Your task to perform on an android device: Open the stopwatch Image 0: 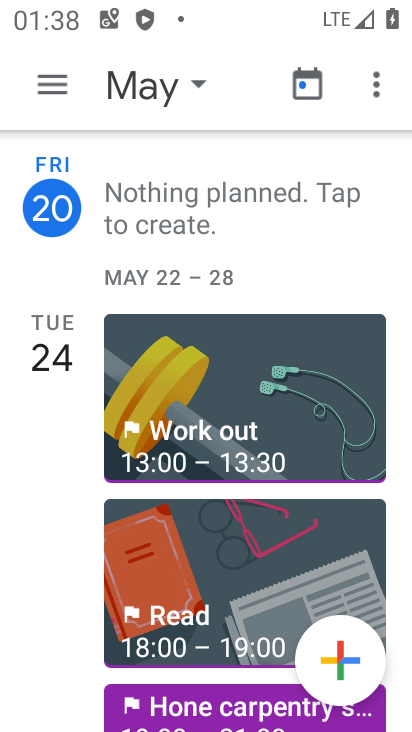
Step 0: click (204, 195)
Your task to perform on an android device: Open the stopwatch Image 1: 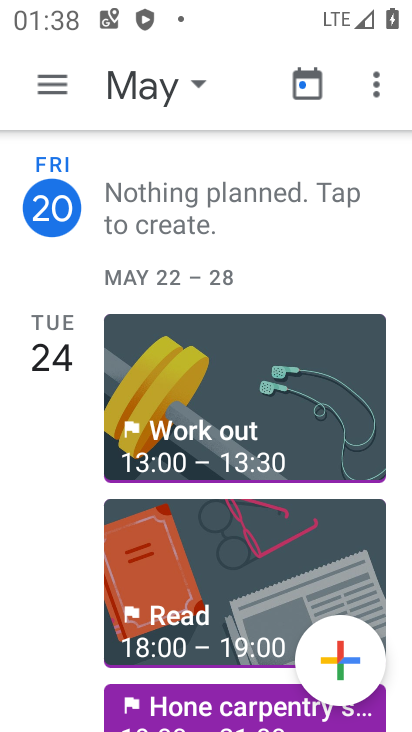
Step 1: press home button
Your task to perform on an android device: Open the stopwatch Image 2: 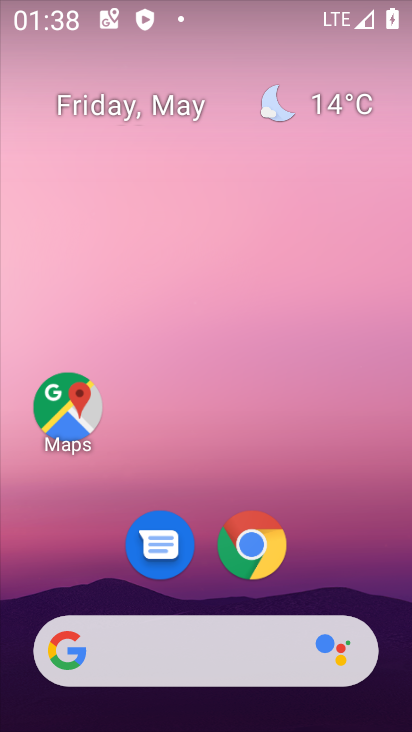
Step 2: drag from (287, 596) to (231, 106)
Your task to perform on an android device: Open the stopwatch Image 3: 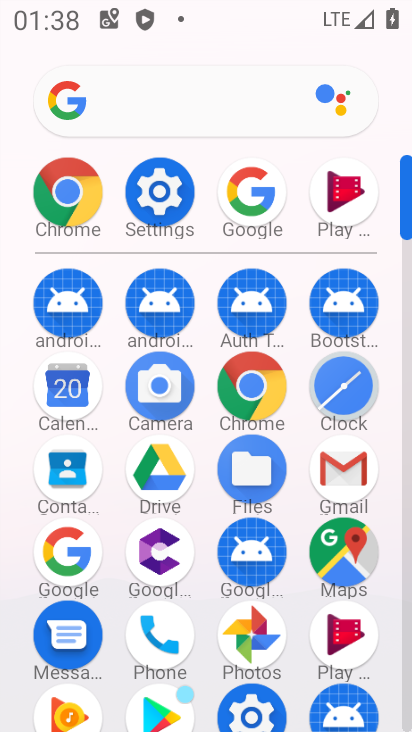
Step 3: click (343, 386)
Your task to perform on an android device: Open the stopwatch Image 4: 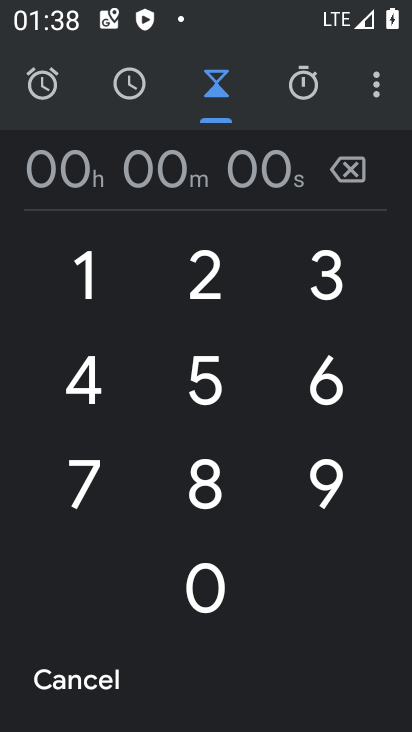
Step 4: click (304, 95)
Your task to perform on an android device: Open the stopwatch Image 5: 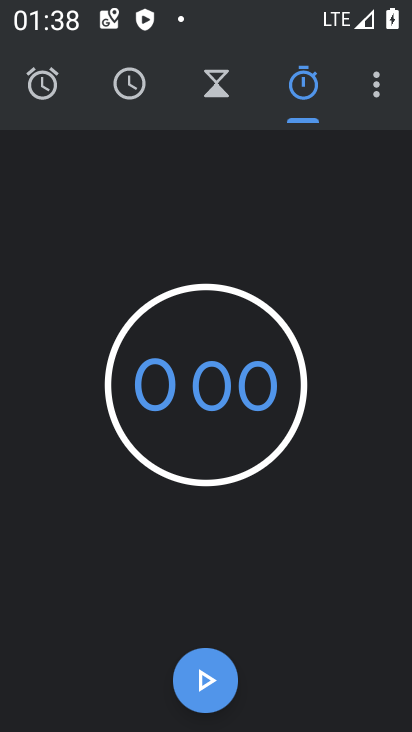
Step 5: click (219, 695)
Your task to perform on an android device: Open the stopwatch Image 6: 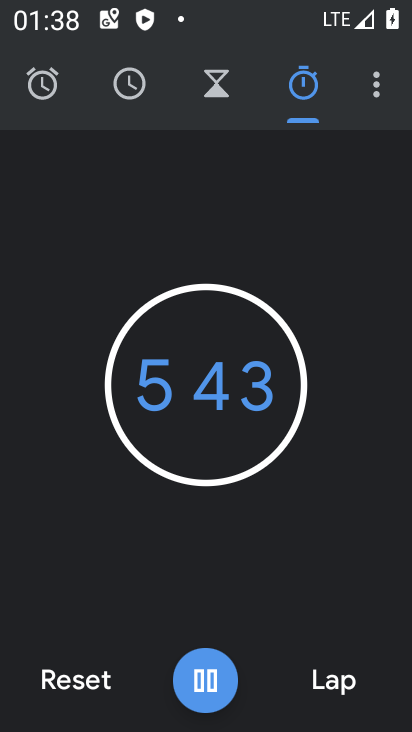
Step 6: click (209, 676)
Your task to perform on an android device: Open the stopwatch Image 7: 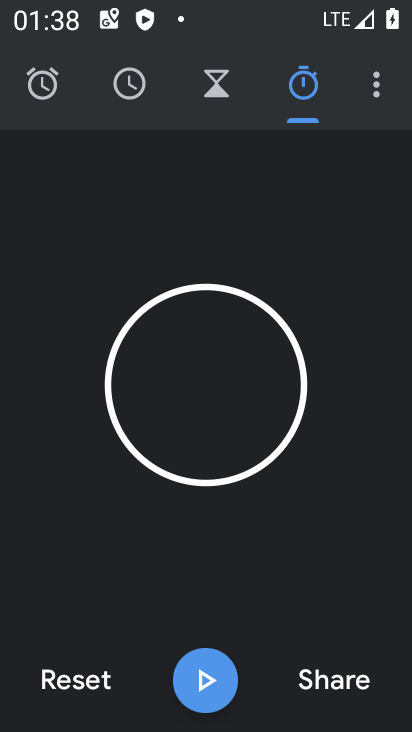
Step 7: task complete